Your task to perform on an android device: Show me popular games on the Play Store Image 0: 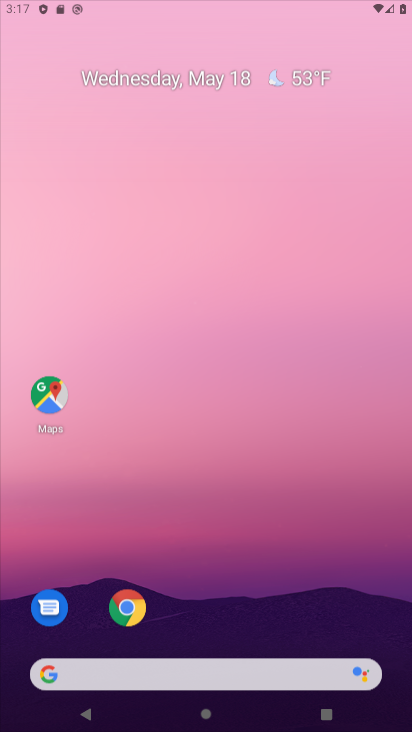
Step 0: drag from (256, 412) to (163, 18)
Your task to perform on an android device: Show me popular games on the Play Store Image 1: 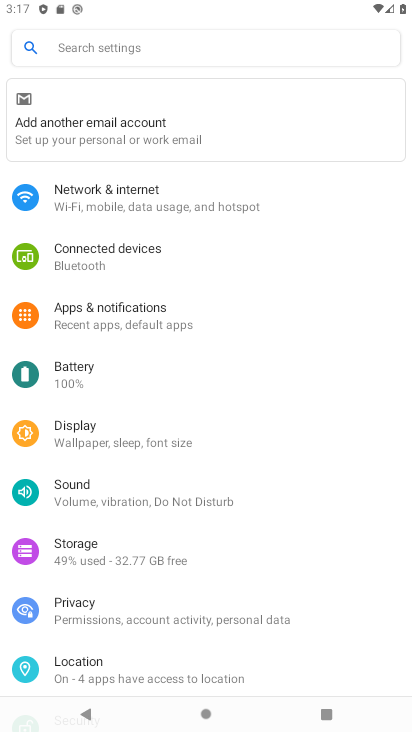
Step 1: press home button
Your task to perform on an android device: Show me popular games on the Play Store Image 2: 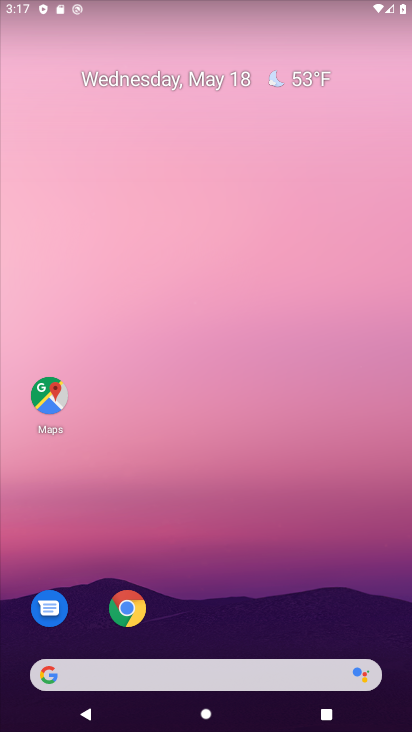
Step 2: drag from (275, 692) to (179, 4)
Your task to perform on an android device: Show me popular games on the Play Store Image 3: 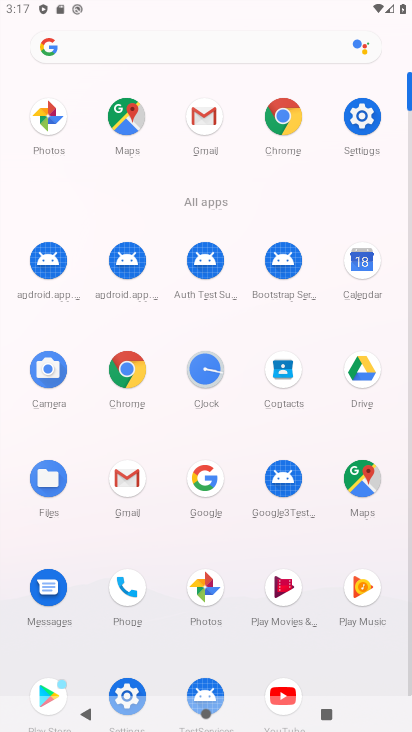
Step 3: drag from (342, 650) to (352, 431)
Your task to perform on an android device: Show me popular games on the Play Store Image 4: 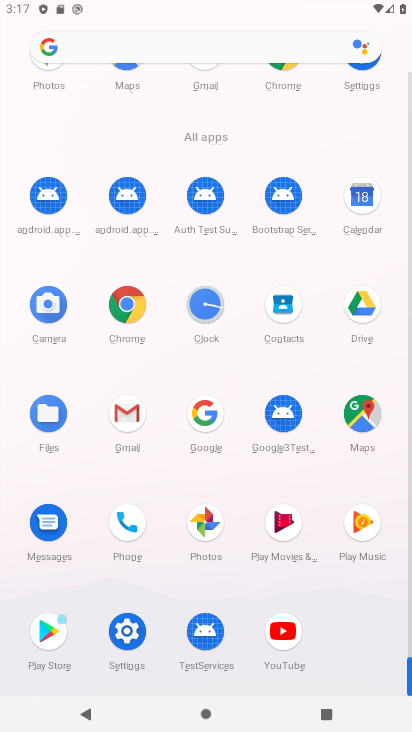
Step 4: click (49, 639)
Your task to perform on an android device: Show me popular games on the Play Store Image 5: 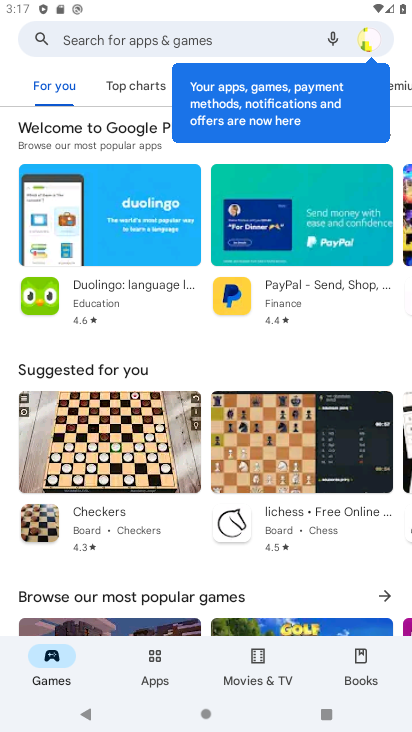
Step 5: drag from (224, 606) to (214, 250)
Your task to perform on an android device: Show me popular games on the Play Store Image 6: 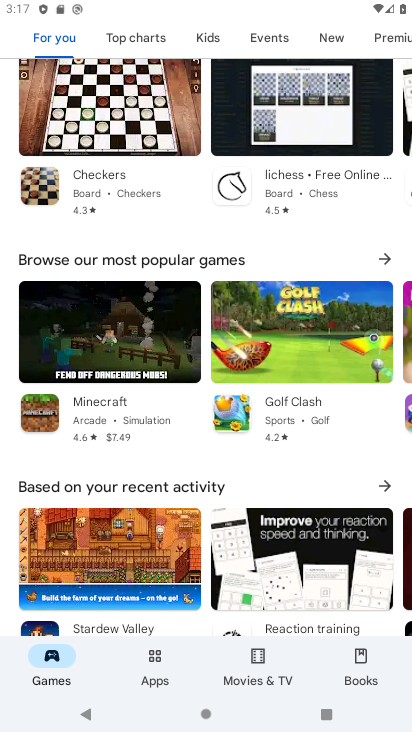
Step 6: click (387, 258)
Your task to perform on an android device: Show me popular games on the Play Store Image 7: 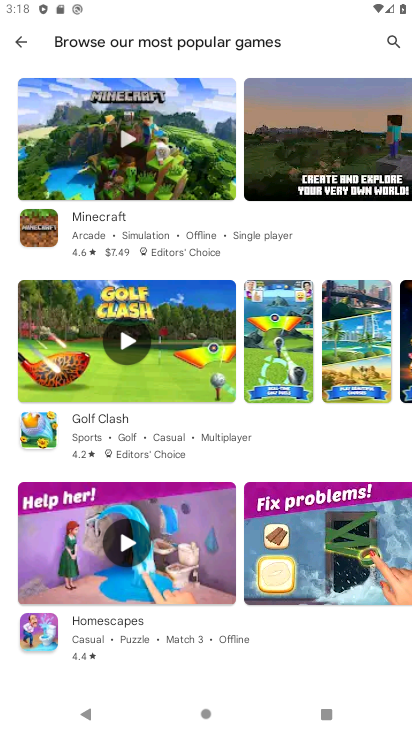
Step 7: task complete